Your task to perform on an android device: What is the recent news? Image 0: 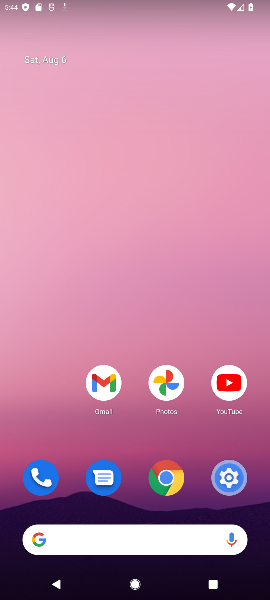
Step 0: click (141, 528)
Your task to perform on an android device: What is the recent news? Image 1: 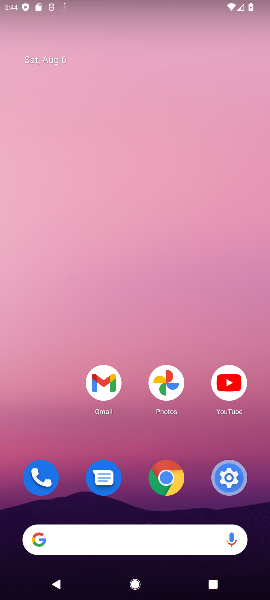
Step 1: click (97, 535)
Your task to perform on an android device: What is the recent news? Image 2: 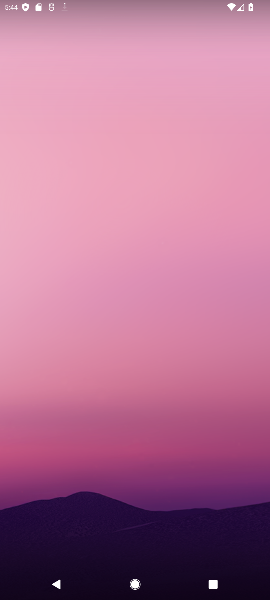
Step 2: click (99, 526)
Your task to perform on an android device: What is the recent news? Image 3: 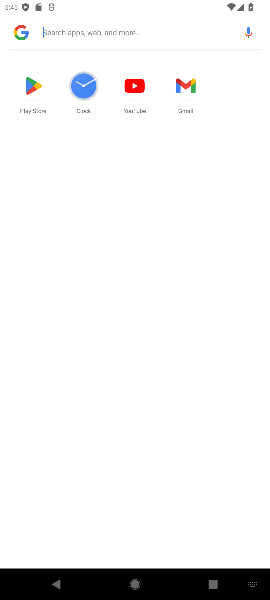
Step 3: press back button
Your task to perform on an android device: What is the recent news? Image 4: 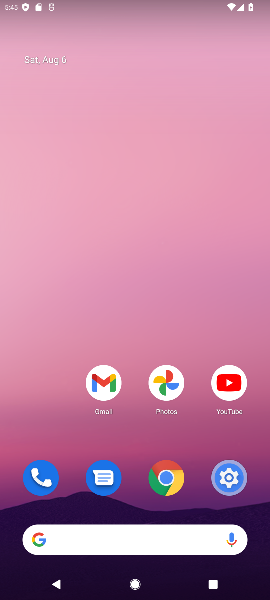
Step 4: click (247, 493)
Your task to perform on an android device: What is the recent news? Image 5: 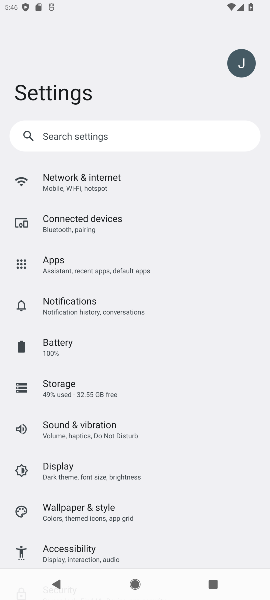
Step 5: press home button
Your task to perform on an android device: What is the recent news? Image 6: 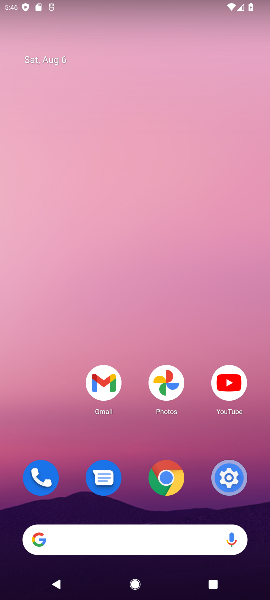
Step 6: click (156, 550)
Your task to perform on an android device: What is the recent news? Image 7: 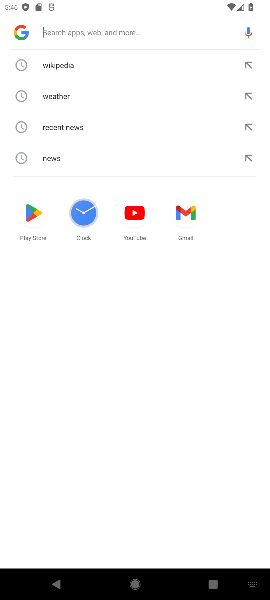
Step 7: click (53, 132)
Your task to perform on an android device: What is the recent news? Image 8: 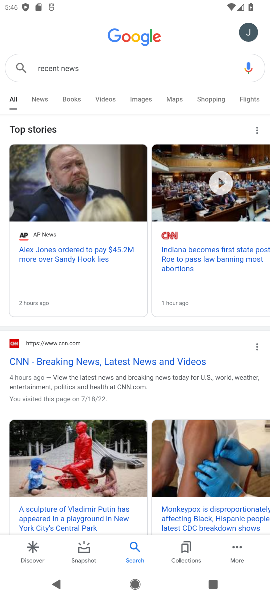
Step 8: task complete